Your task to perform on an android device: turn on priority inbox in the gmail app Image 0: 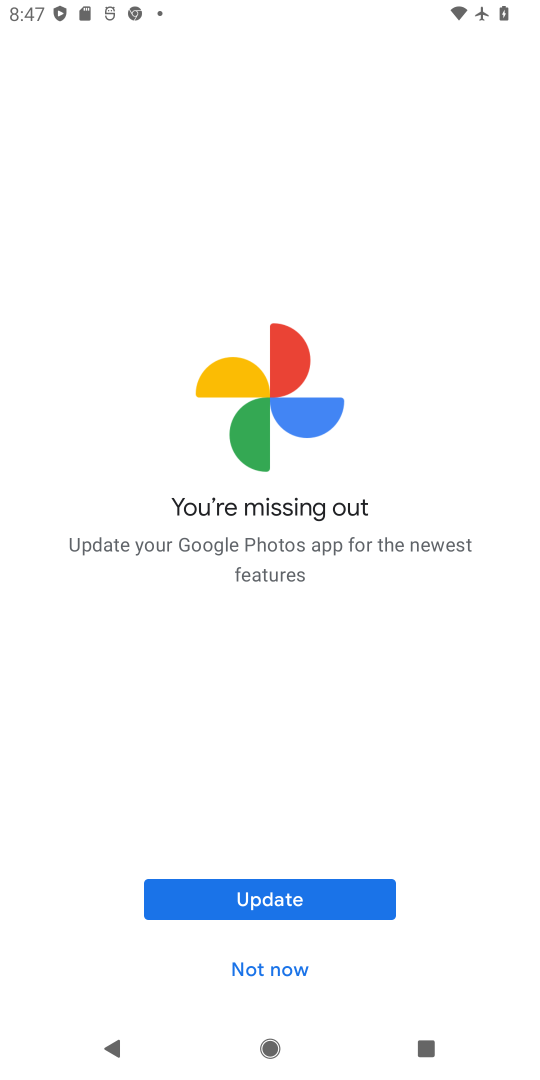
Step 0: press home button
Your task to perform on an android device: turn on priority inbox in the gmail app Image 1: 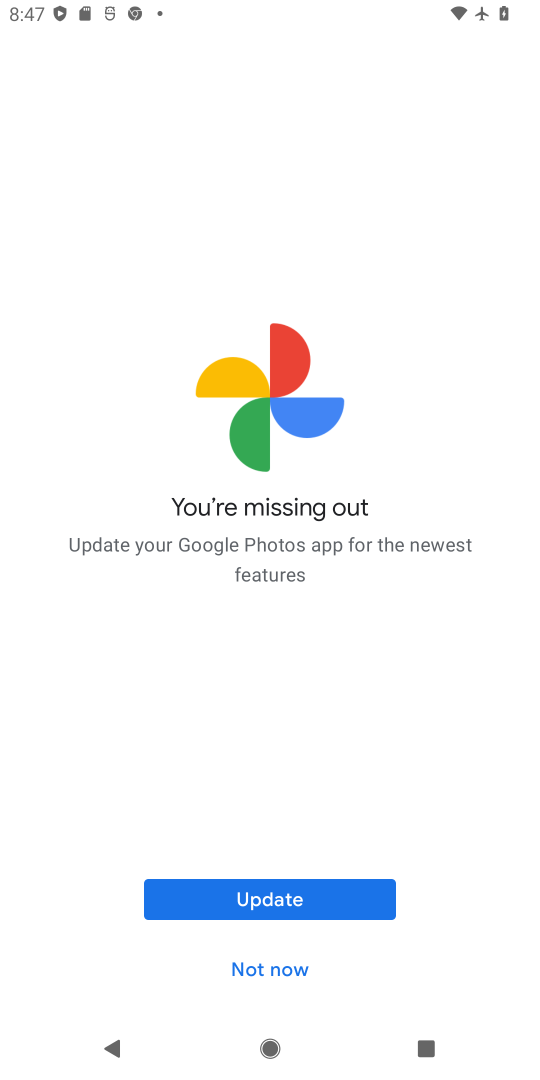
Step 1: press home button
Your task to perform on an android device: turn on priority inbox in the gmail app Image 2: 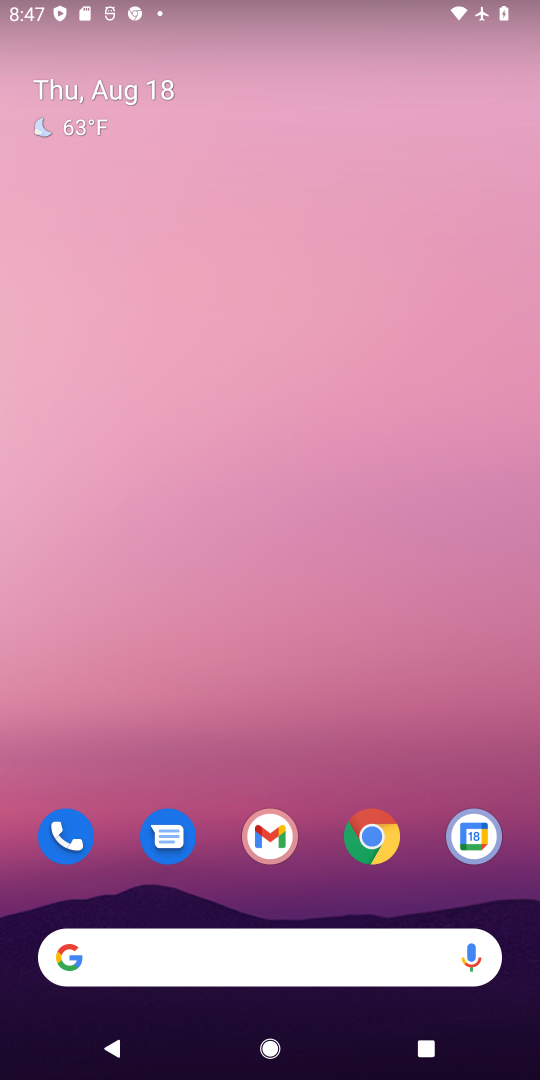
Step 2: drag from (332, 744) to (350, 9)
Your task to perform on an android device: turn on priority inbox in the gmail app Image 3: 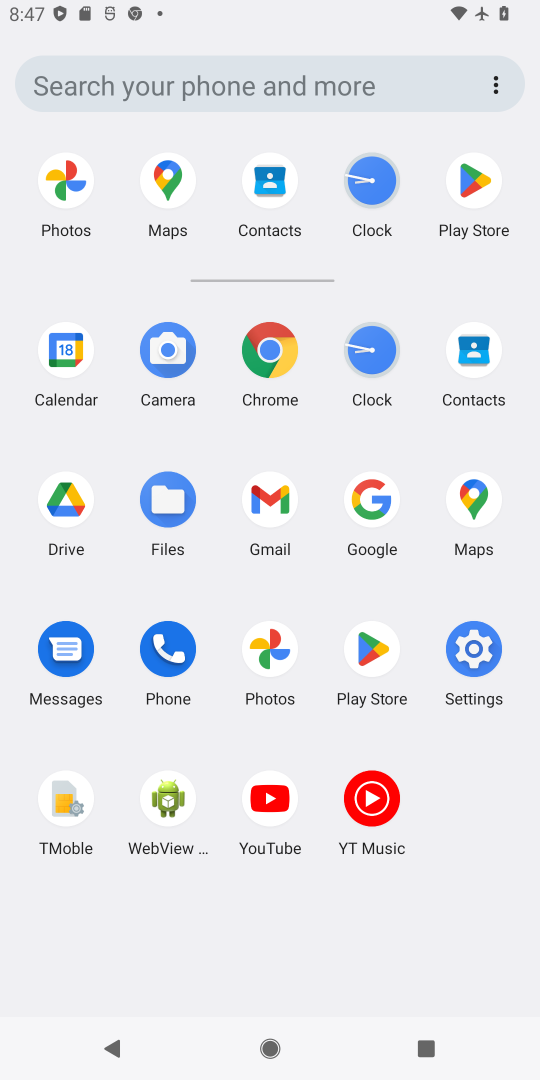
Step 3: click (276, 517)
Your task to perform on an android device: turn on priority inbox in the gmail app Image 4: 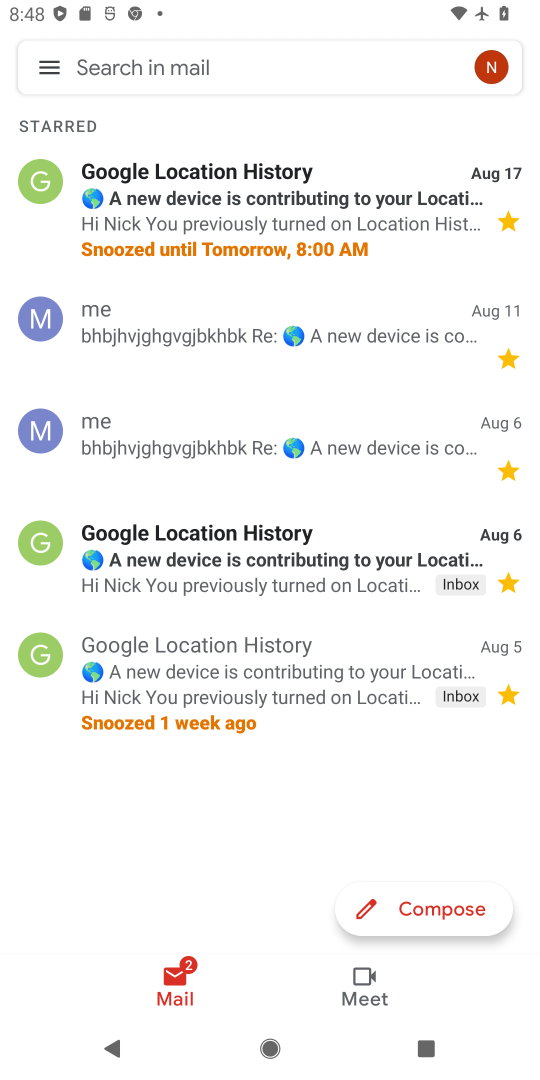
Step 4: click (45, 58)
Your task to perform on an android device: turn on priority inbox in the gmail app Image 5: 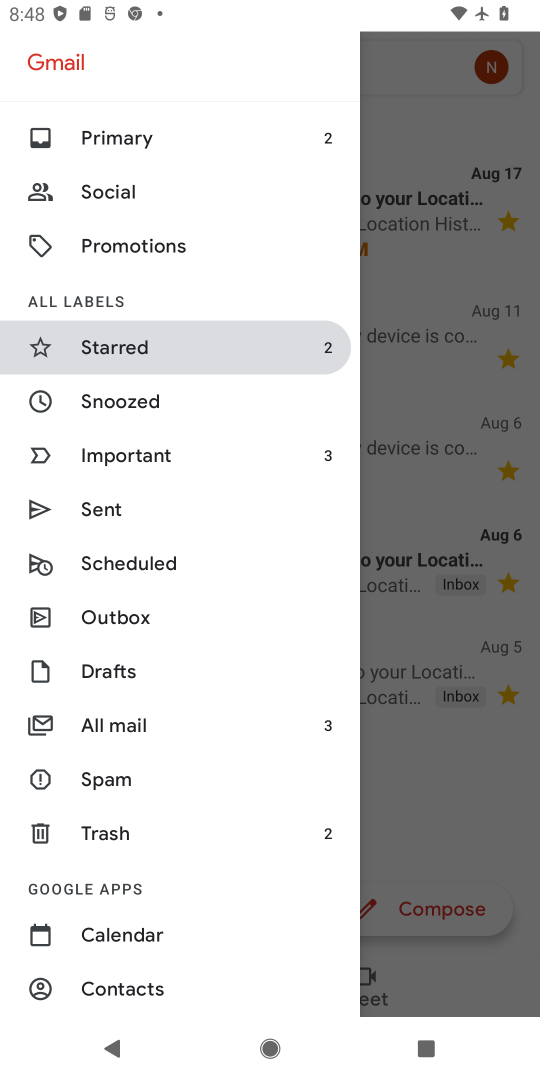
Step 5: drag from (153, 889) to (150, 67)
Your task to perform on an android device: turn on priority inbox in the gmail app Image 6: 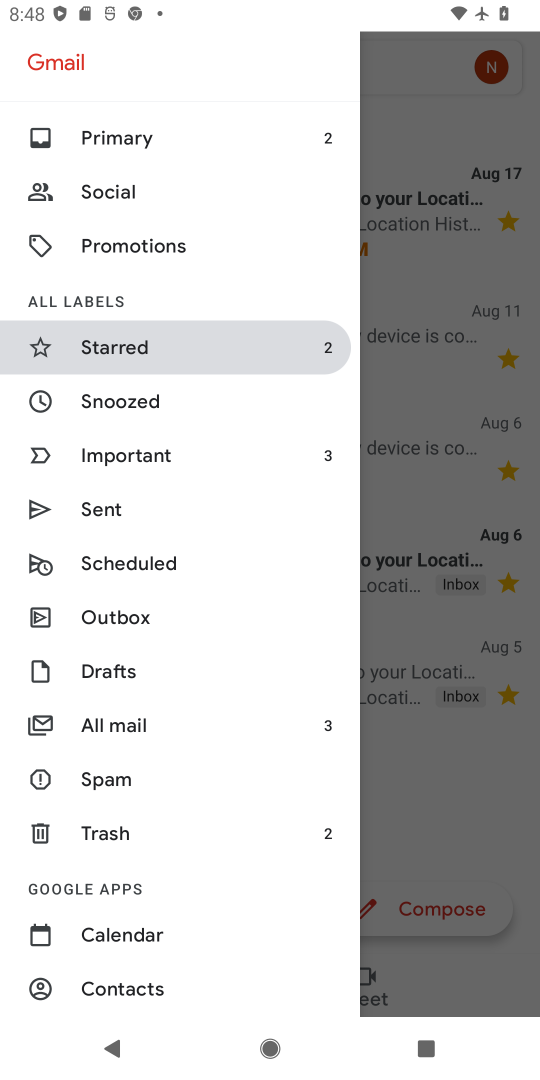
Step 6: drag from (149, 931) to (320, 309)
Your task to perform on an android device: turn on priority inbox in the gmail app Image 7: 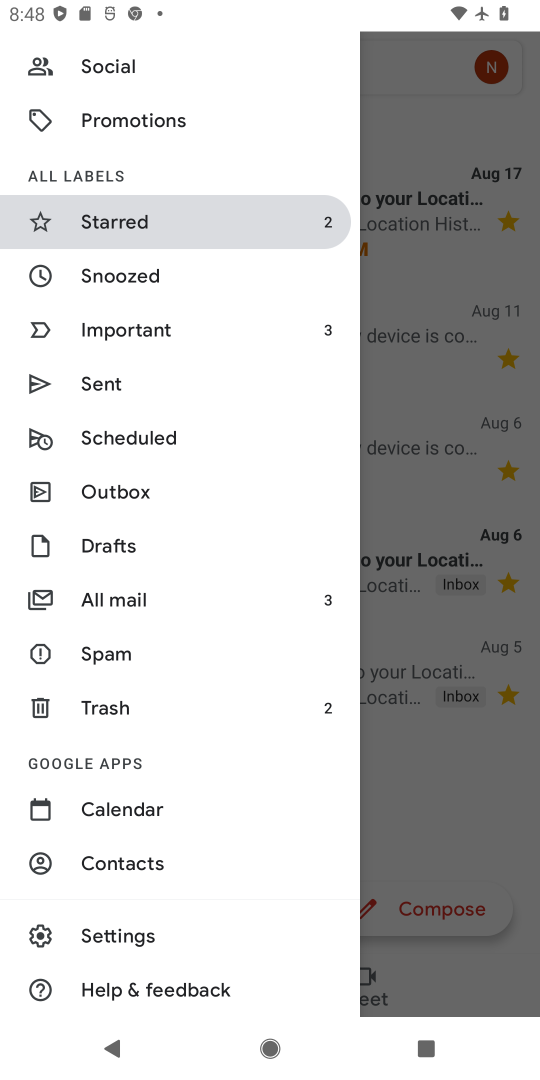
Step 7: click (108, 940)
Your task to perform on an android device: turn on priority inbox in the gmail app Image 8: 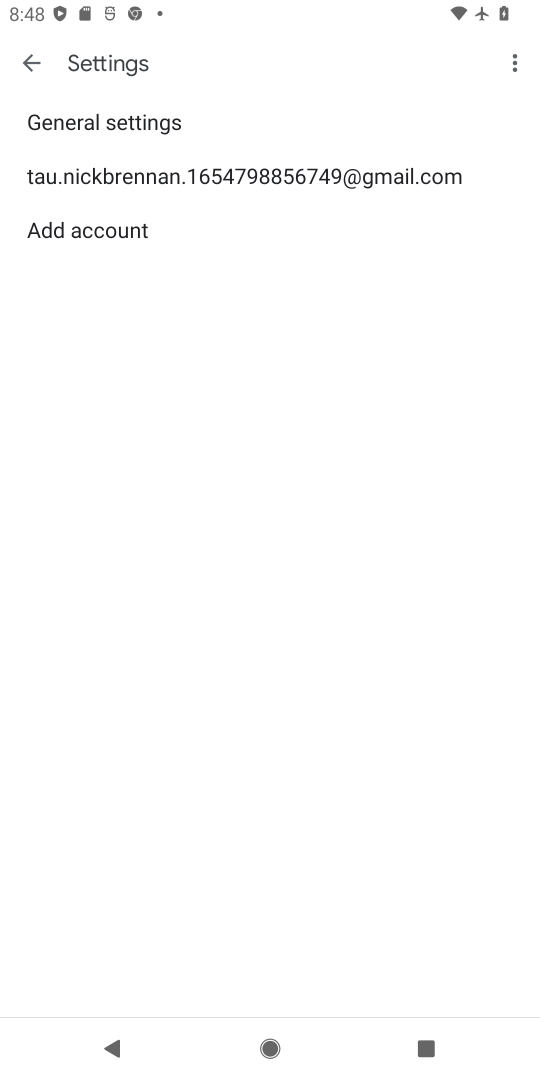
Step 8: click (224, 183)
Your task to perform on an android device: turn on priority inbox in the gmail app Image 9: 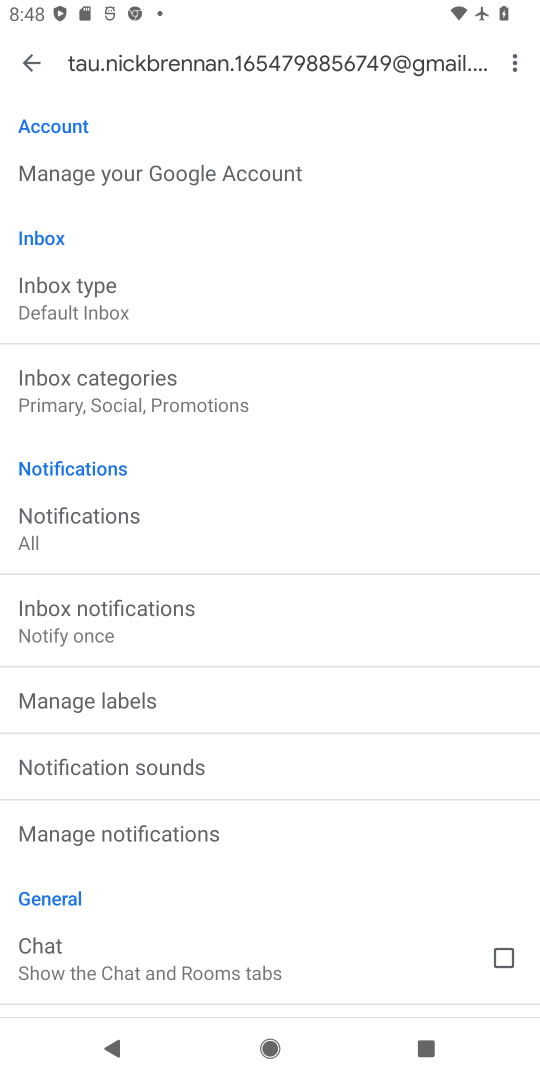
Step 9: click (73, 292)
Your task to perform on an android device: turn on priority inbox in the gmail app Image 10: 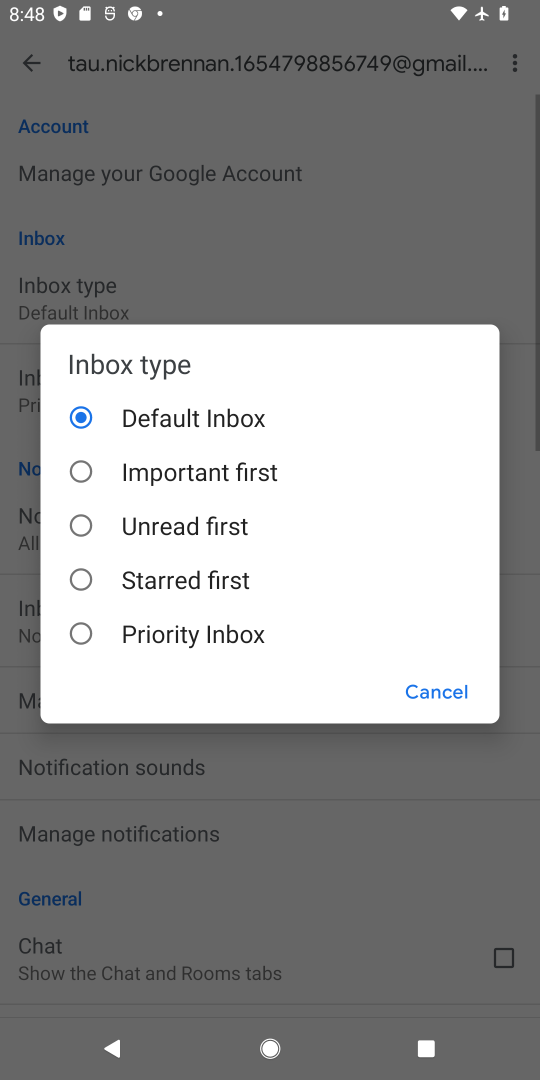
Step 10: task complete